Your task to perform on an android device: What is the recent news? Image 0: 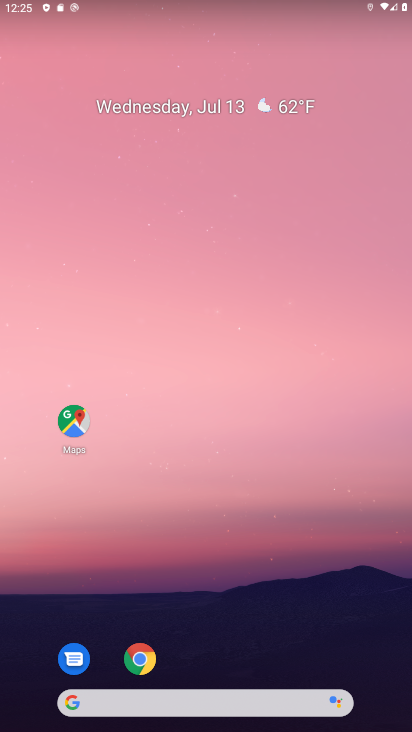
Step 0: drag from (261, 686) to (254, 286)
Your task to perform on an android device: What is the recent news? Image 1: 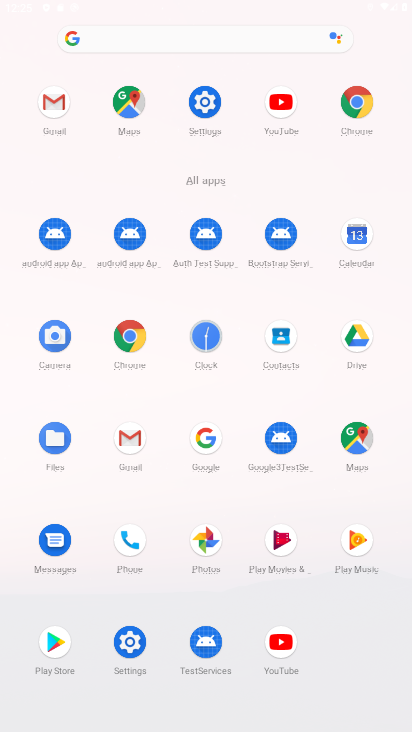
Step 1: press back button
Your task to perform on an android device: What is the recent news? Image 2: 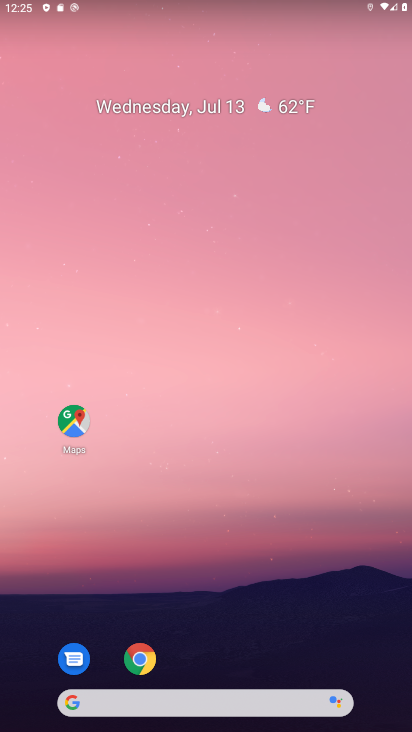
Step 2: drag from (410, 253) to (314, 261)
Your task to perform on an android device: What is the recent news? Image 3: 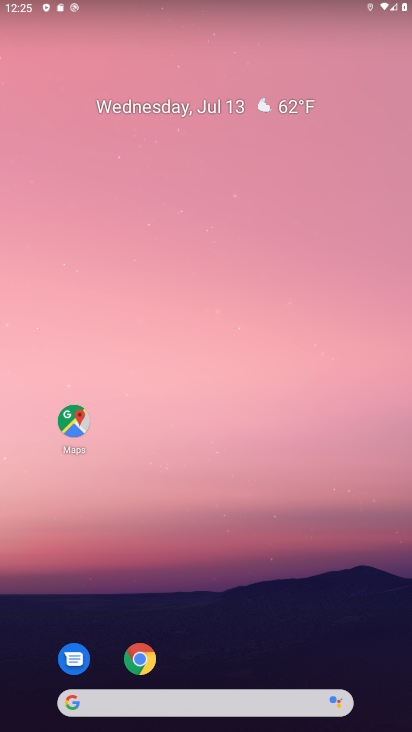
Step 3: click (373, 355)
Your task to perform on an android device: What is the recent news? Image 4: 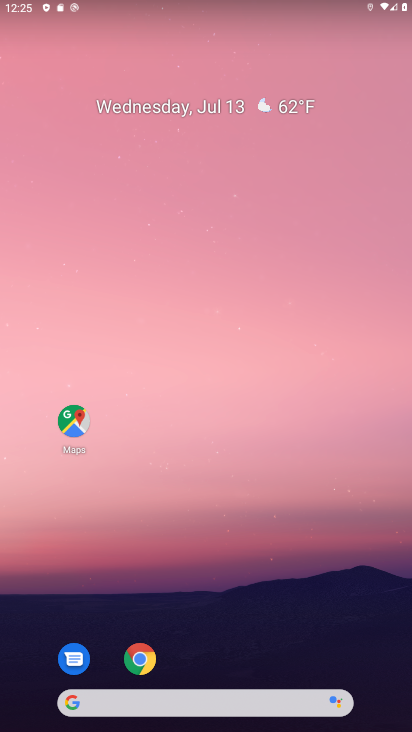
Step 4: click (125, 51)
Your task to perform on an android device: What is the recent news? Image 5: 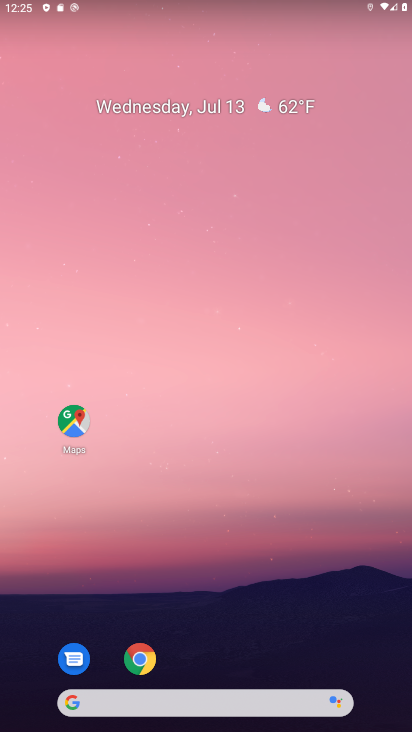
Step 5: drag from (249, 518) to (239, 80)
Your task to perform on an android device: What is the recent news? Image 6: 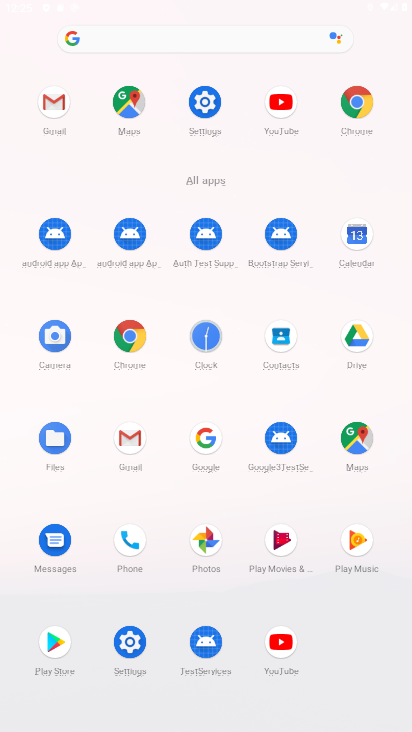
Step 6: click (357, 114)
Your task to perform on an android device: What is the recent news? Image 7: 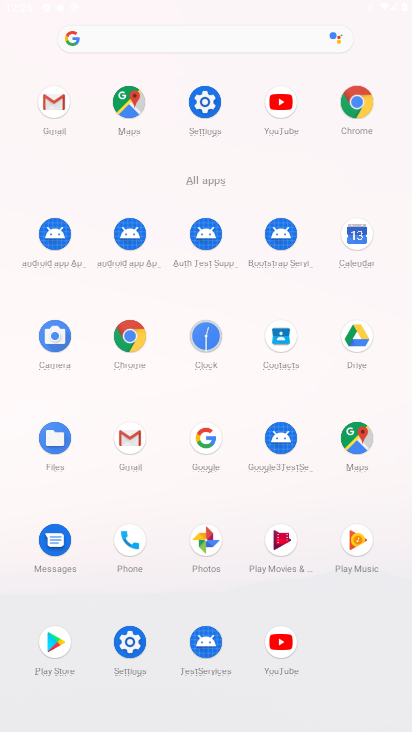
Step 7: click (359, 111)
Your task to perform on an android device: What is the recent news? Image 8: 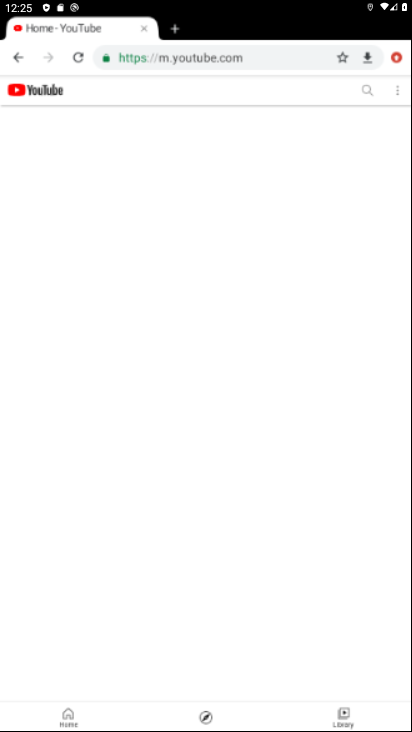
Step 8: click (359, 109)
Your task to perform on an android device: What is the recent news? Image 9: 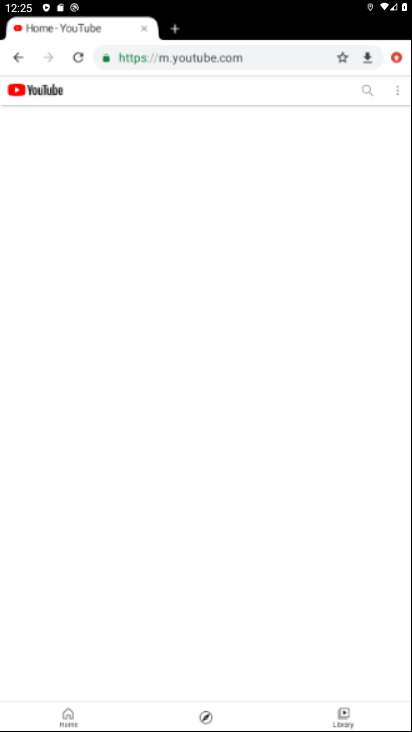
Step 9: click (359, 109)
Your task to perform on an android device: What is the recent news? Image 10: 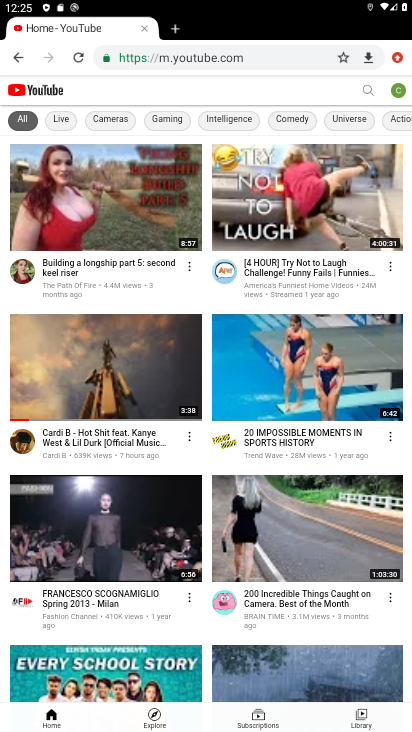
Step 10: task complete